Your task to perform on an android device: Go to battery settings Image 0: 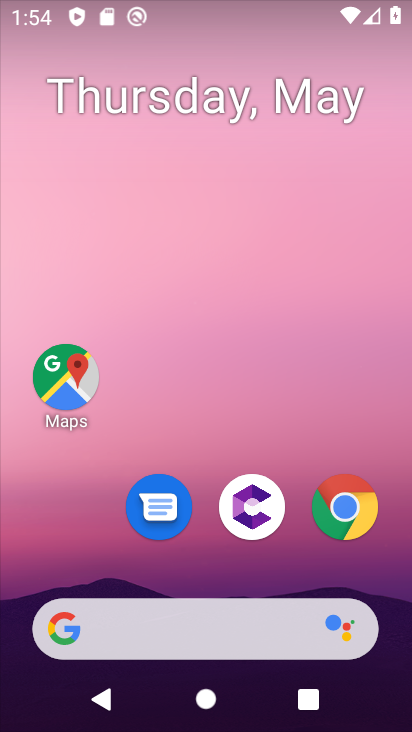
Step 0: drag from (279, 426) to (294, 56)
Your task to perform on an android device: Go to battery settings Image 1: 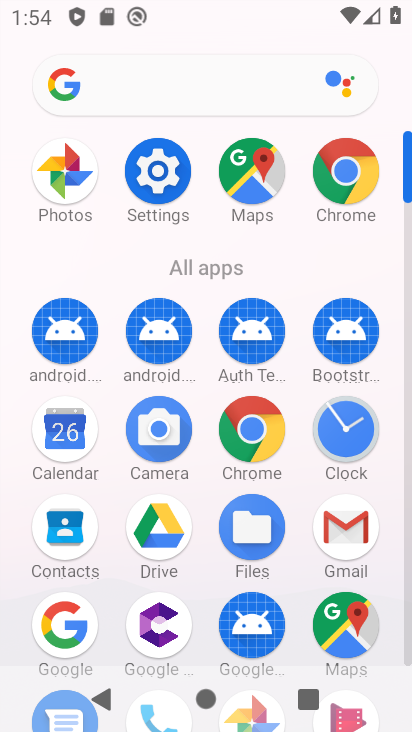
Step 1: click (163, 188)
Your task to perform on an android device: Go to battery settings Image 2: 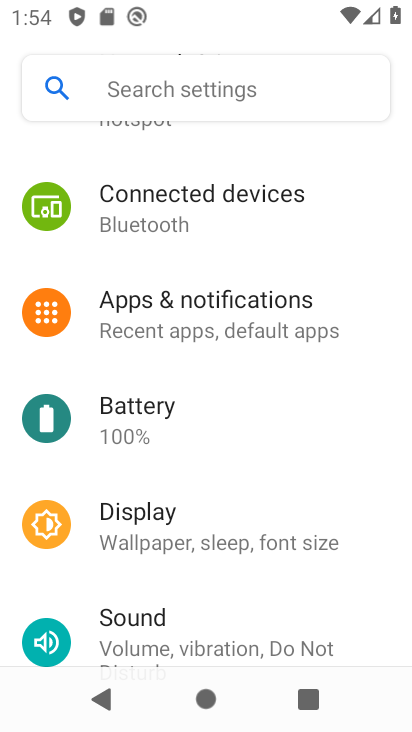
Step 2: click (133, 423)
Your task to perform on an android device: Go to battery settings Image 3: 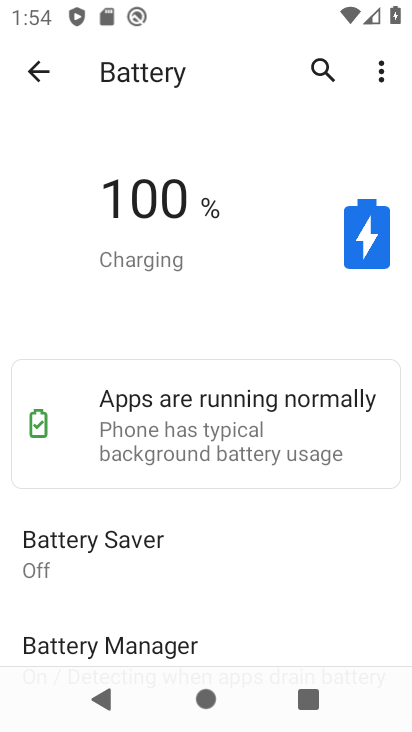
Step 3: task complete